Your task to perform on an android device: turn on notifications settings in the gmail app Image 0: 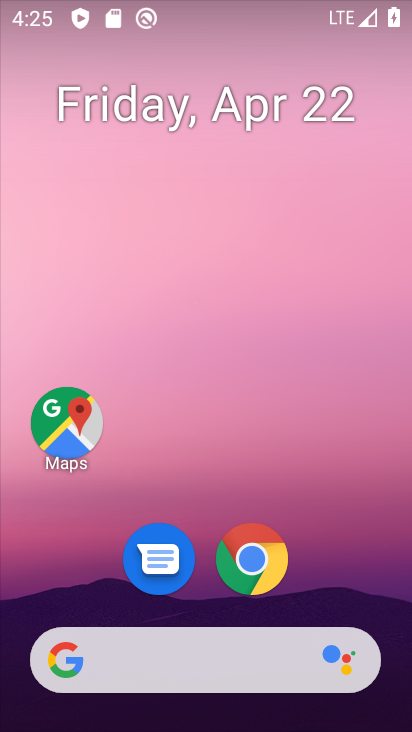
Step 0: drag from (334, 515) to (254, 32)
Your task to perform on an android device: turn on notifications settings in the gmail app Image 1: 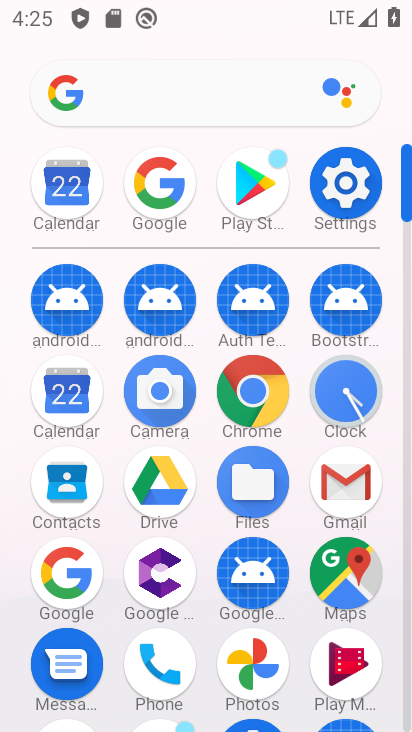
Step 1: click (356, 493)
Your task to perform on an android device: turn on notifications settings in the gmail app Image 2: 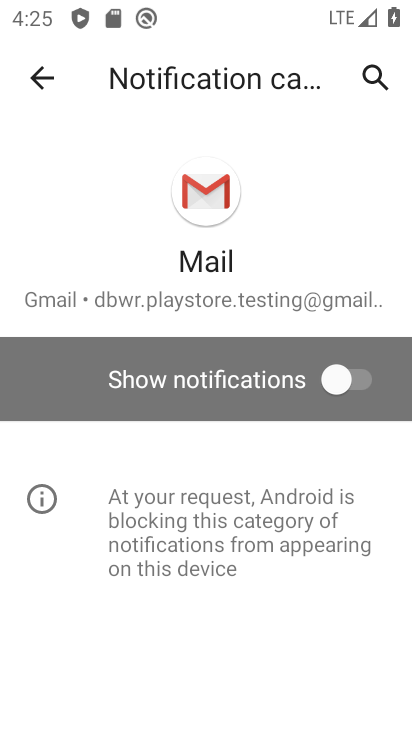
Step 2: click (339, 381)
Your task to perform on an android device: turn on notifications settings in the gmail app Image 3: 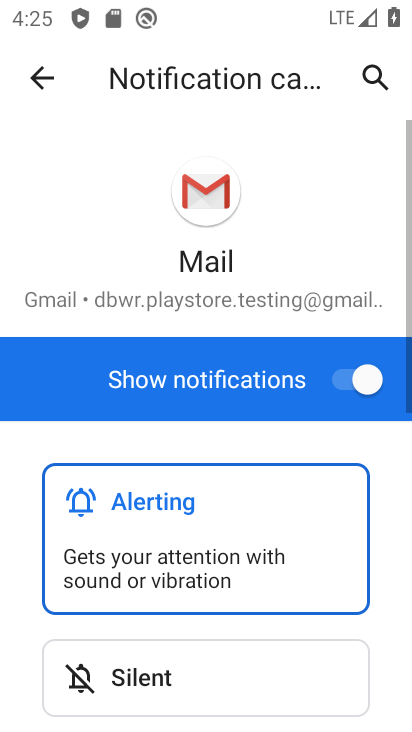
Step 3: task complete